Your task to perform on an android device: open app "Adobe Acrobat Reader: Edit PDF" Image 0: 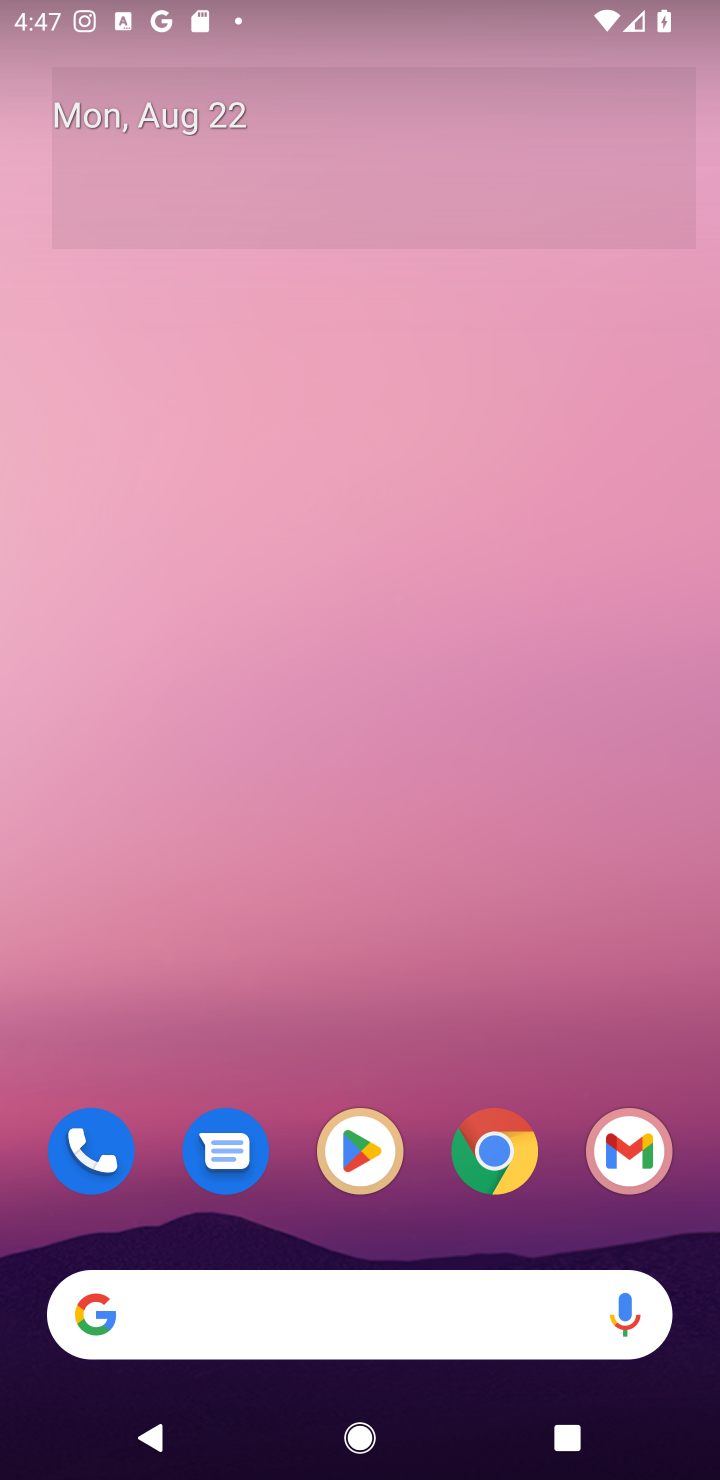
Step 0: click (371, 1150)
Your task to perform on an android device: open app "Adobe Acrobat Reader: Edit PDF" Image 1: 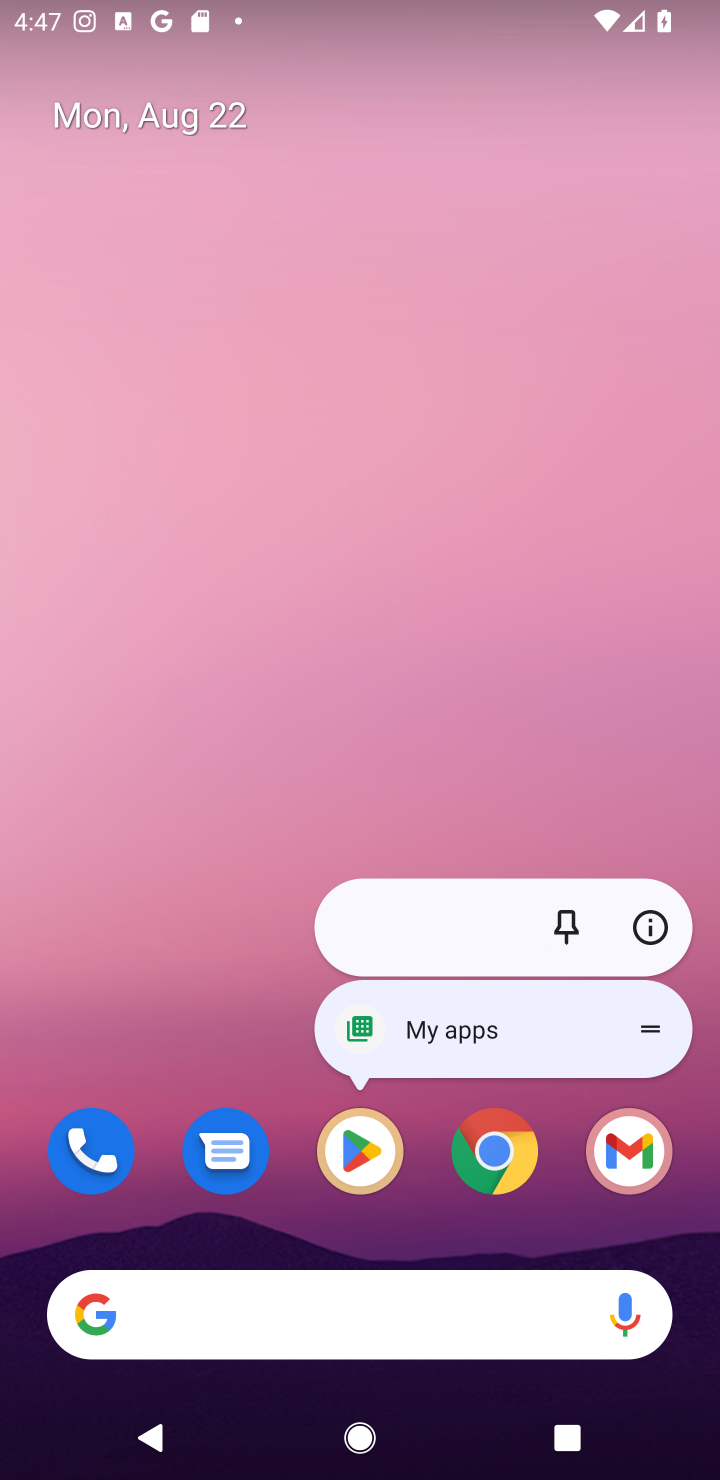
Step 1: click (366, 1136)
Your task to perform on an android device: open app "Adobe Acrobat Reader: Edit PDF" Image 2: 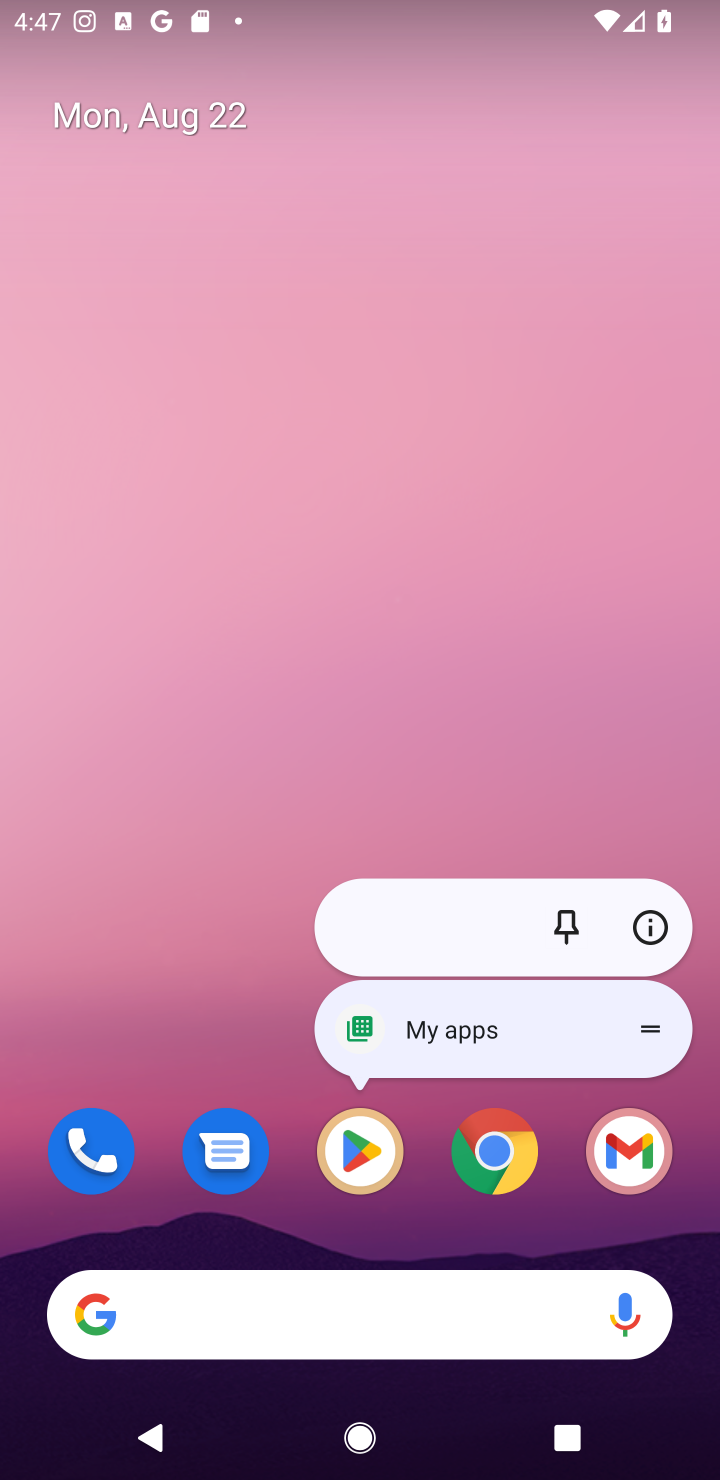
Step 2: click (366, 1129)
Your task to perform on an android device: open app "Adobe Acrobat Reader: Edit PDF" Image 3: 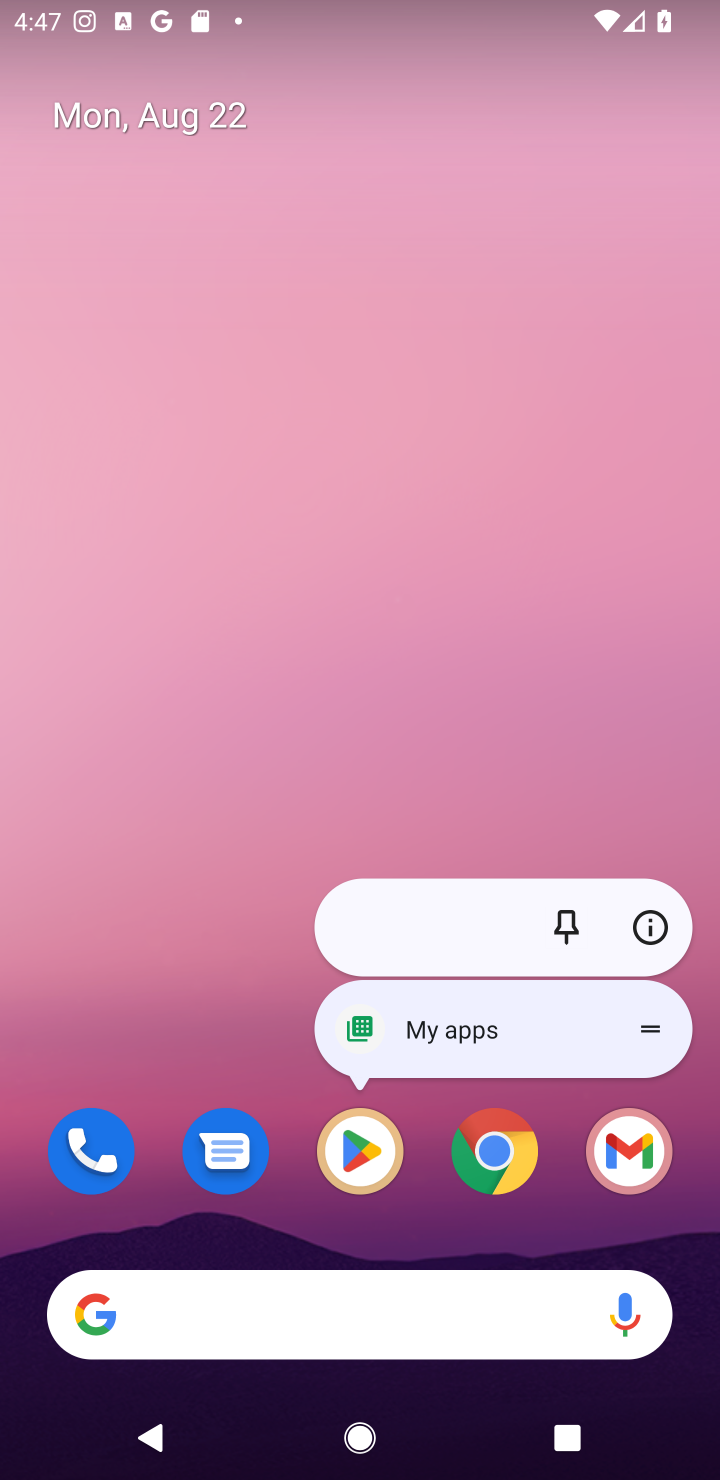
Step 3: click (362, 1136)
Your task to perform on an android device: open app "Adobe Acrobat Reader: Edit PDF" Image 4: 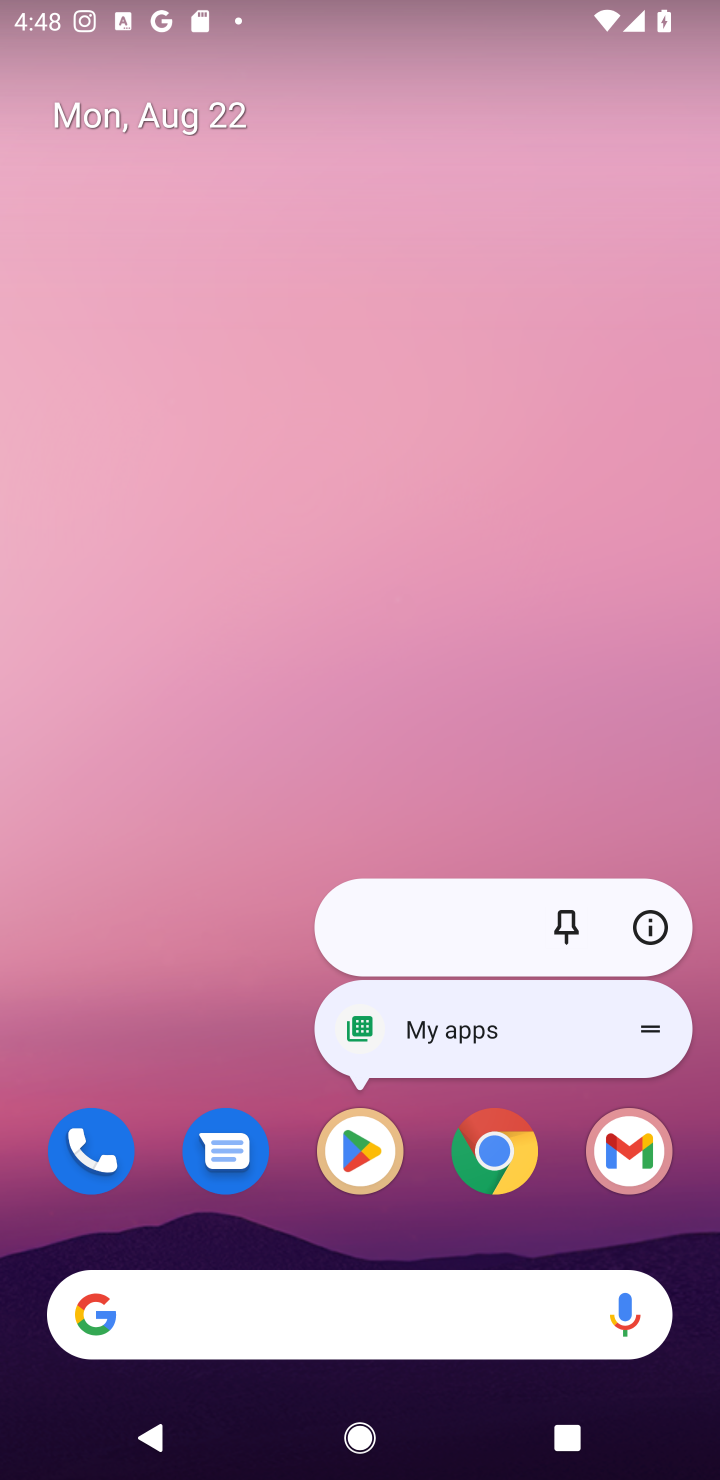
Step 4: click (368, 1144)
Your task to perform on an android device: open app "Adobe Acrobat Reader: Edit PDF" Image 5: 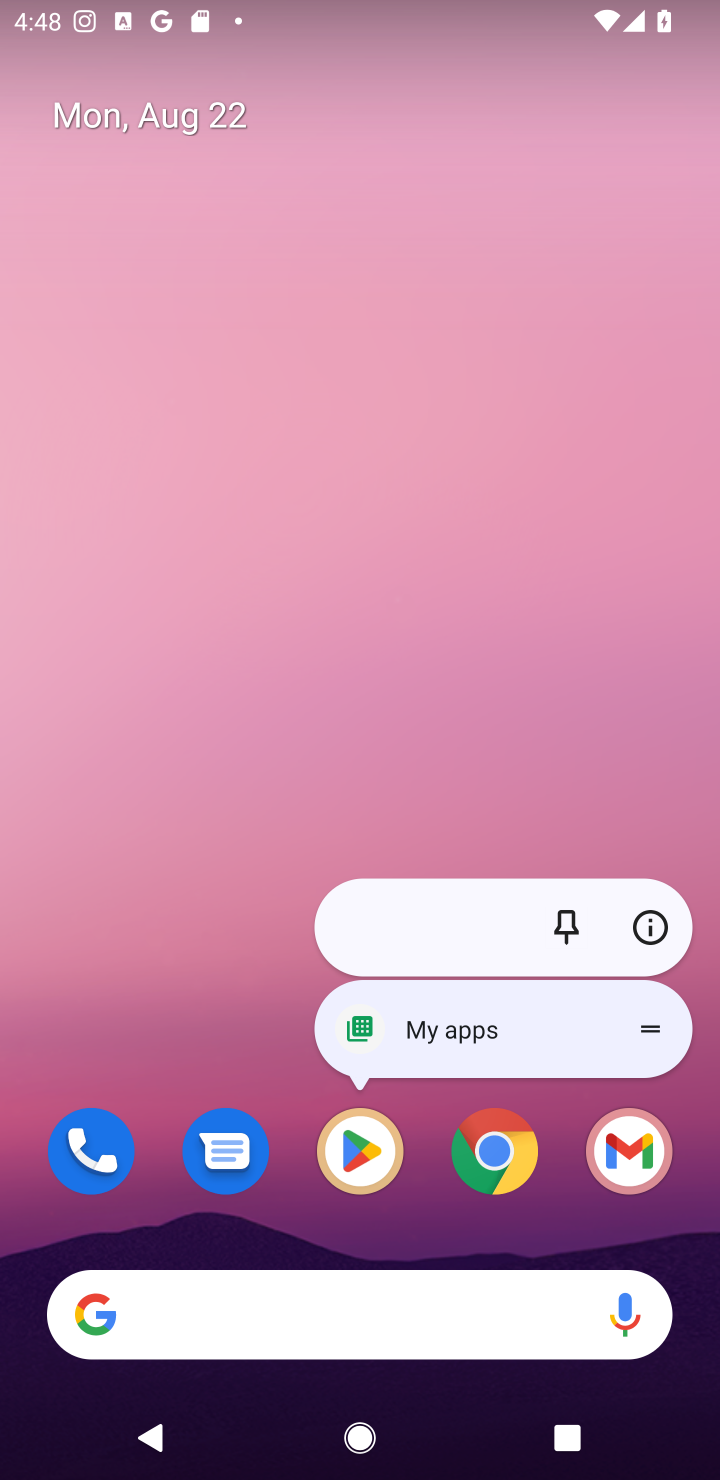
Step 5: click (370, 1152)
Your task to perform on an android device: open app "Adobe Acrobat Reader: Edit PDF" Image 6: 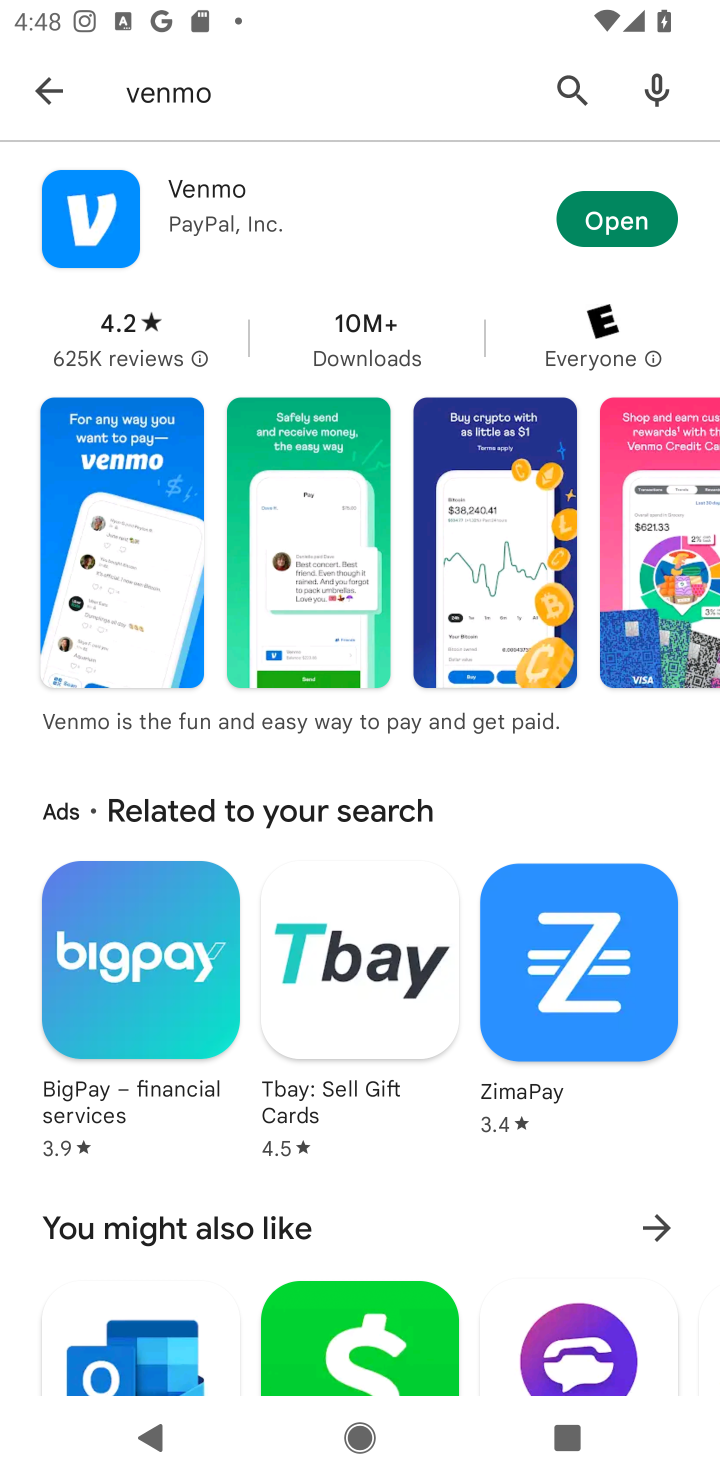
Step 6: click (565, 82)
Your task to perform on an android device: open app "Adobe Acrobat Reader: Edit PDF" Image 7: 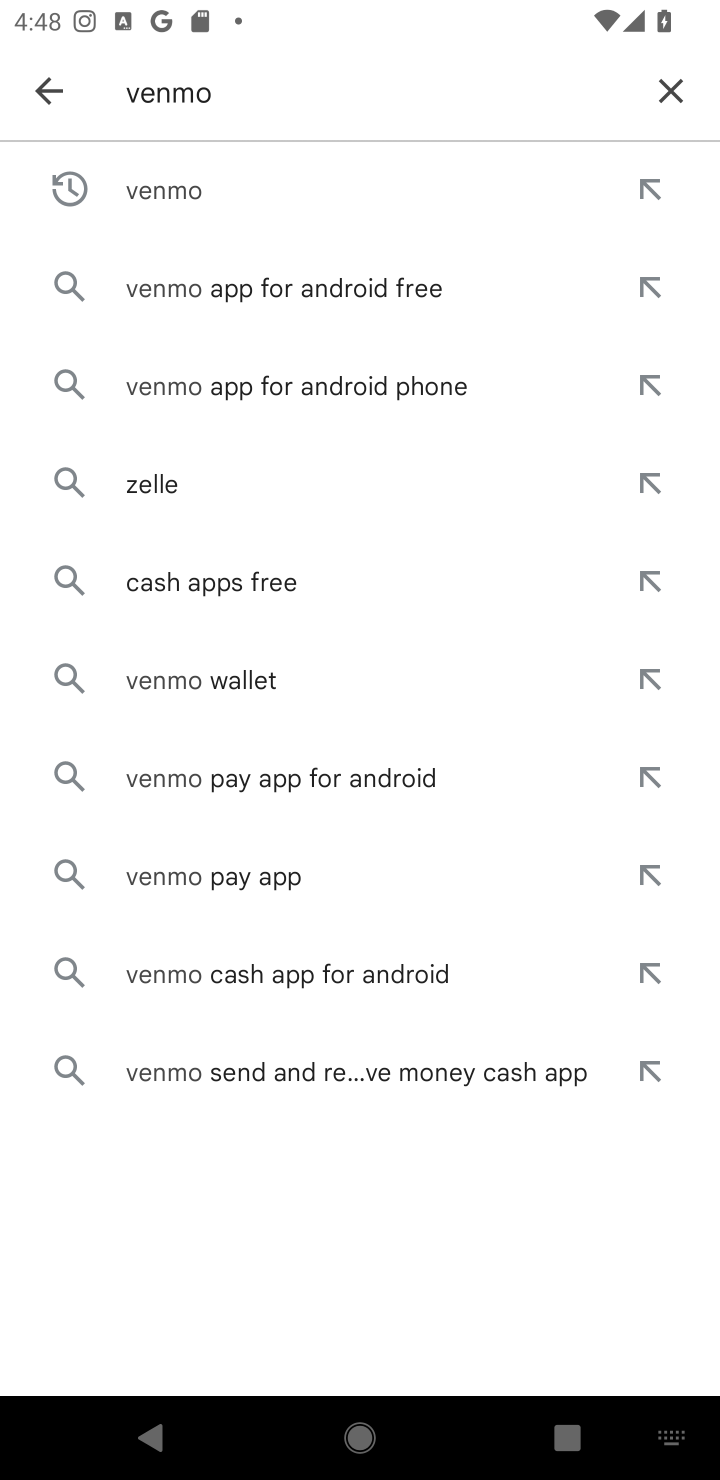
Step 7: click (666, 79)
Your task to perform on an android device: open app "Adobe Acrobat Reader: Edit PDF" Image 8: 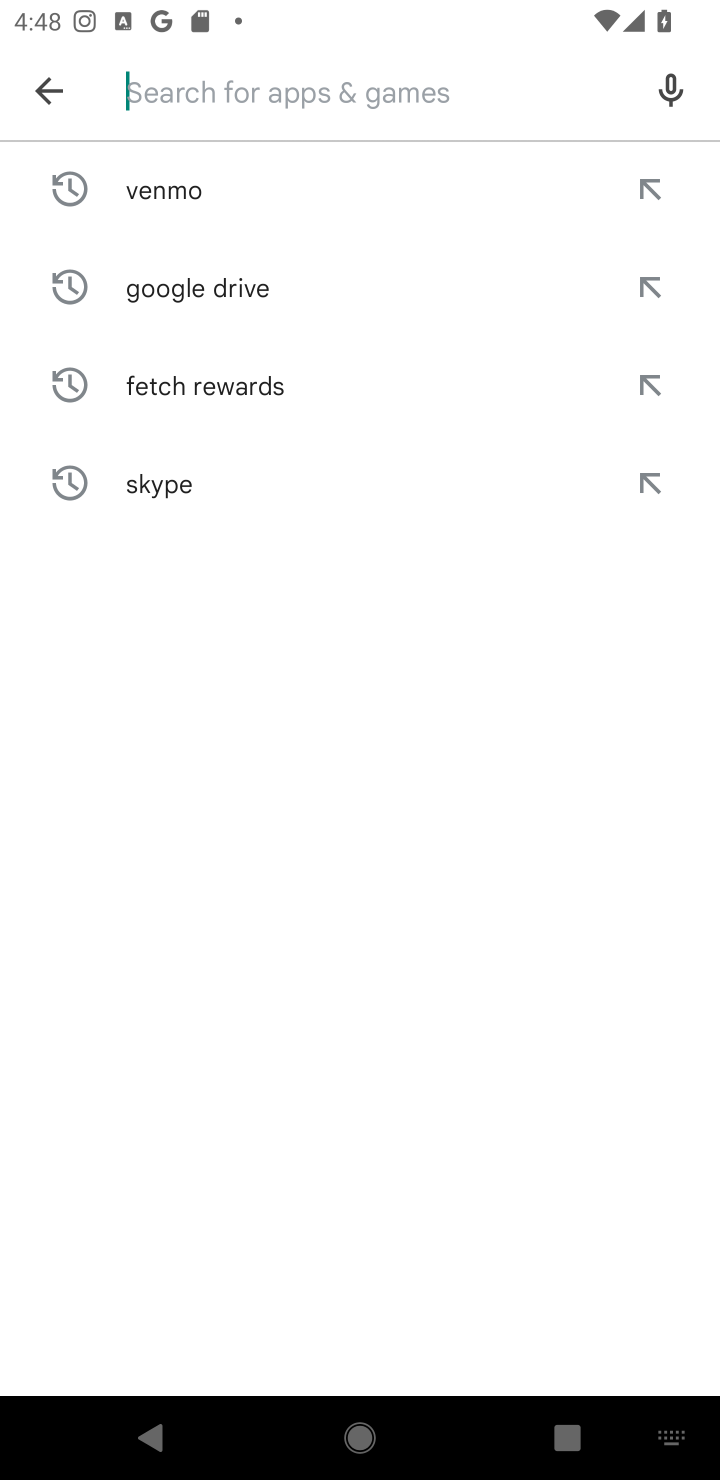
Step 8: type "Adobe Acrobat Reader: Edit PDF"
Your task to perform on an android device: open app "Adobe Acrobat Reader: Edit PDF" Image 9: 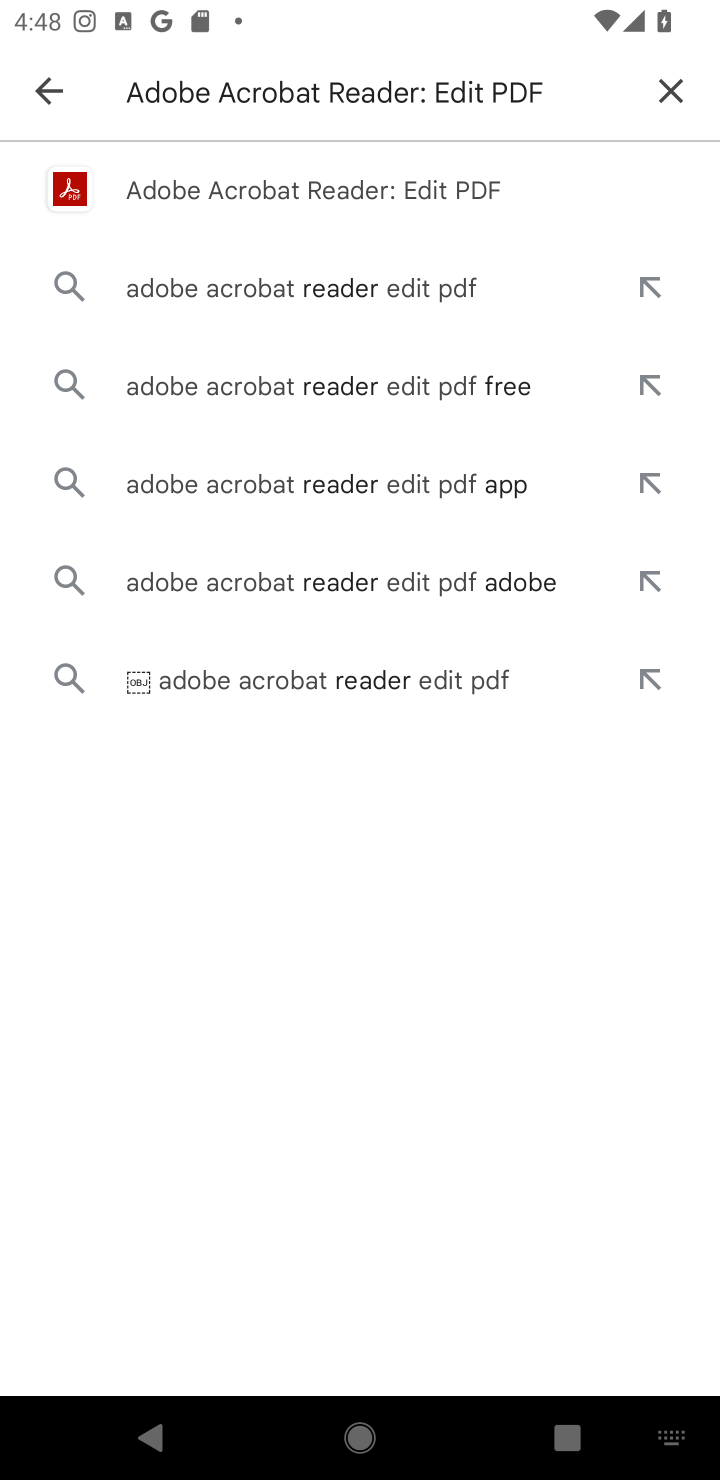
Step 9: click (221, 203)
Your task to perform on an android device: open app "Adobe Acrobat Reader: Edit PDF" Image 10: 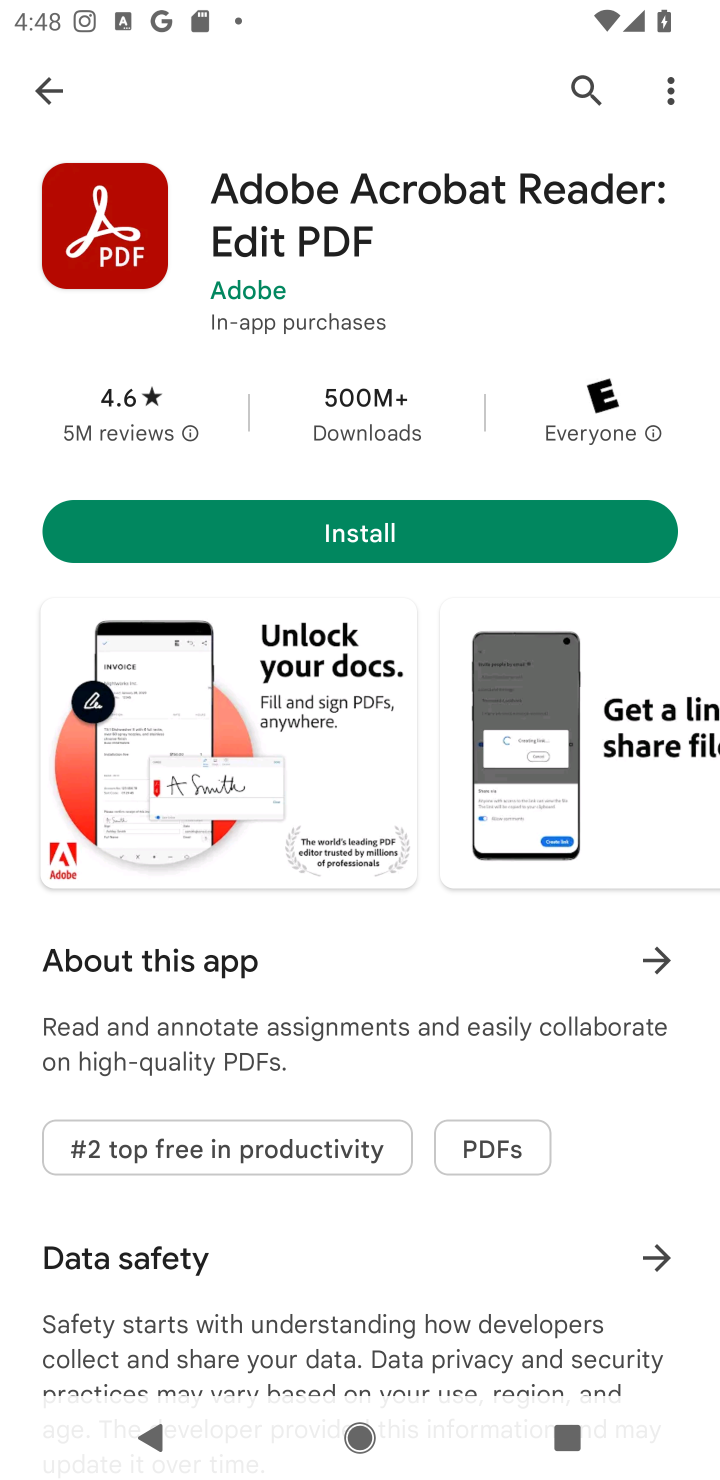
Step 10: task complete